Your task to perform on an android device: open a new tab in the chrome app Image 0: 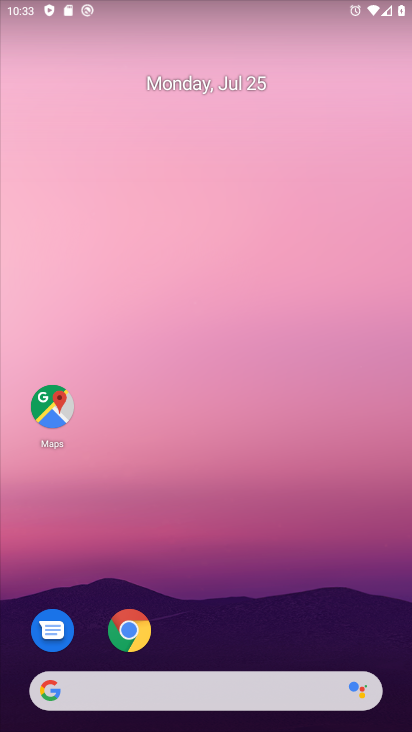
Step 0: click (144, 641)
Your task to perform on an android device: open a new tab in the chrome app Image 1: 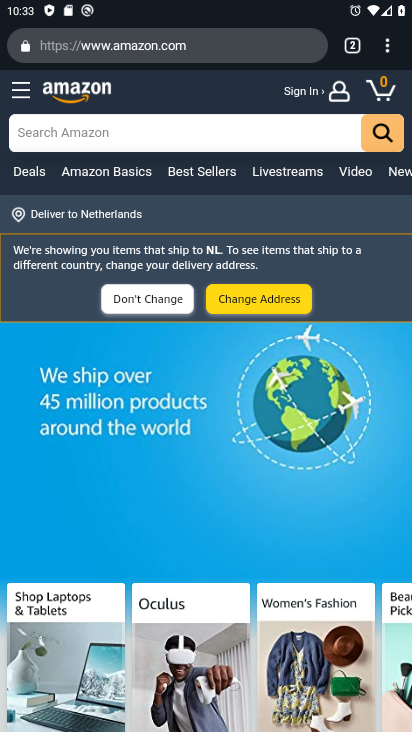
Step 1: task complete